Your task to perform on an android device: toggle show notifications on the lock screen Image 0: 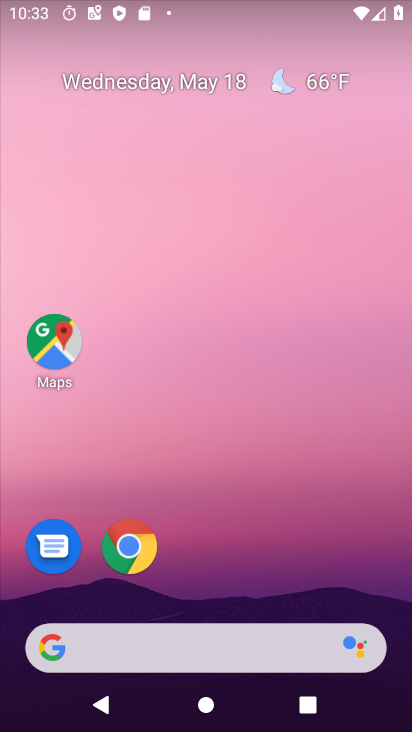
Step 0: drag from (234, 595) to (215, 204)
Your task to perform on an android device: toggle show notifications on the lock screen Image 1: 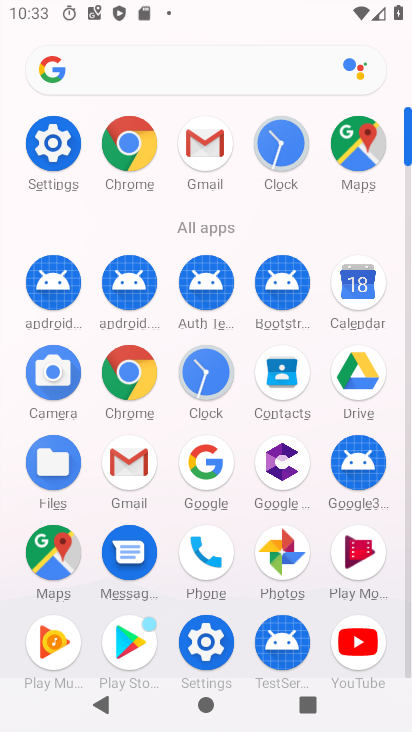
Step 1: click (39, 147)
Your task to perform on an android device: toggle show notifications on the lock screen Image 2: 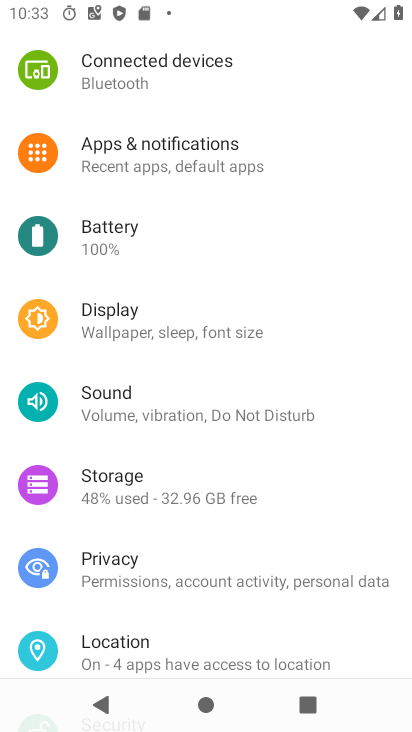
Step 2: click (155, 145)
Your task to perform on an android device: toggle show notifications on the lock screen Image 3: 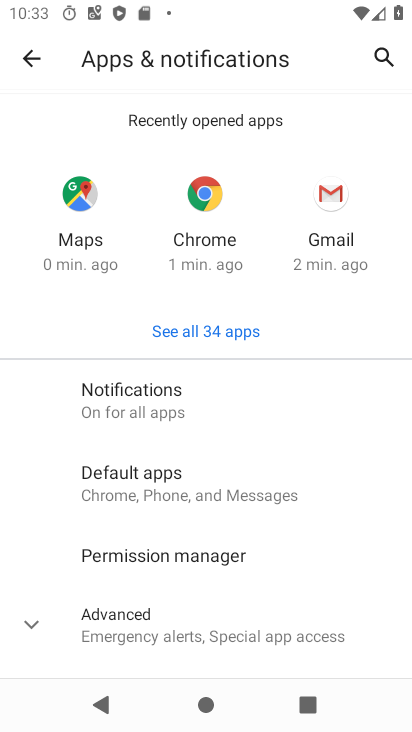
Step 3: drag from (220, 621) to (232, 301)
Your task to perform on an android device: toggle show notifications on the lock screen Image 4: 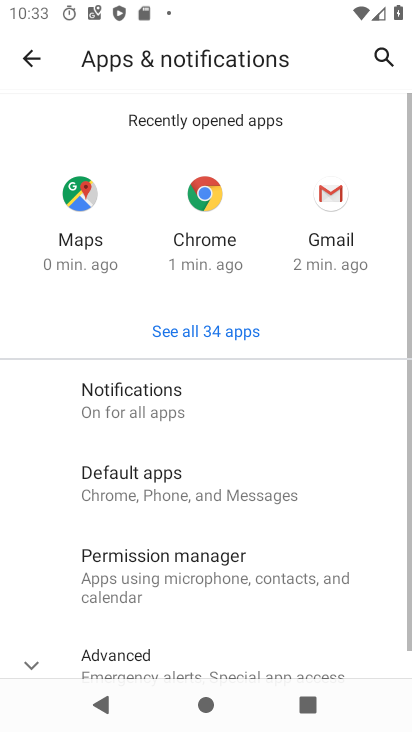
Step 4: click (118, 394)
Your task to perform on an android device: toggle show notifications on the lock screen Image 5: 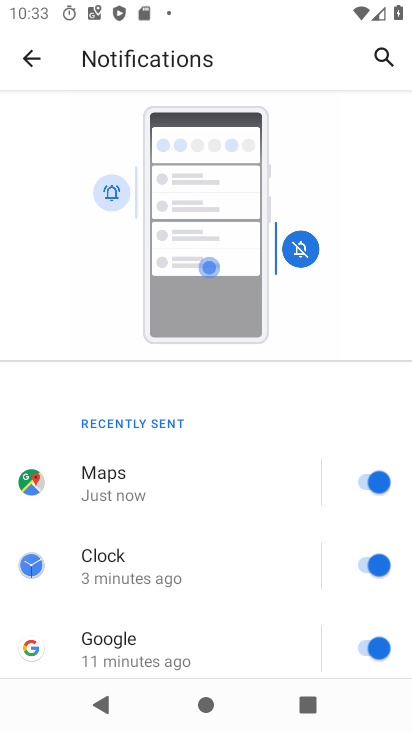
Step 5: drag from (102, 633) to (197, 261)
Your task to perform on an android device: toggle show notifications on the lock screen Image 6: 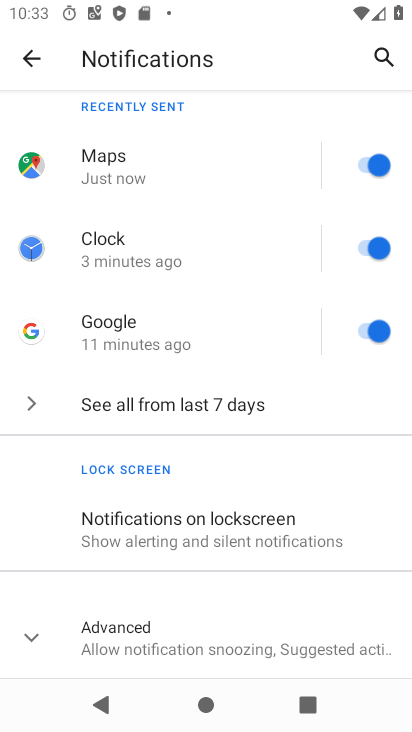
Step 6: click (107, 537)
Your task to perform on an android device: toggle show notifications on the lock screen Image 7: 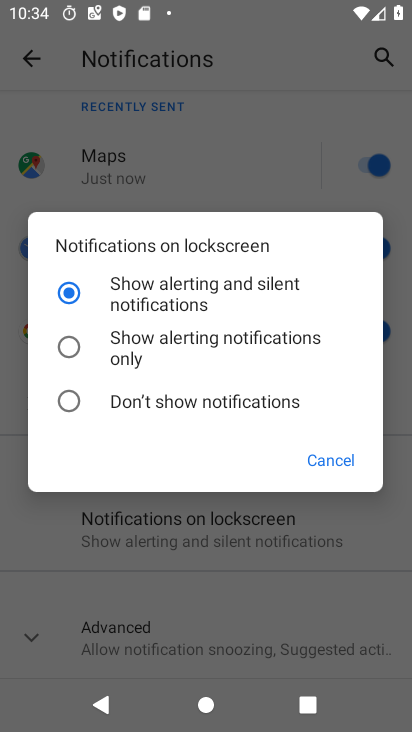
Step 7: click (220, 347)
Your task to perform on an android device: toggle show notifications on the lock screen Image 8: 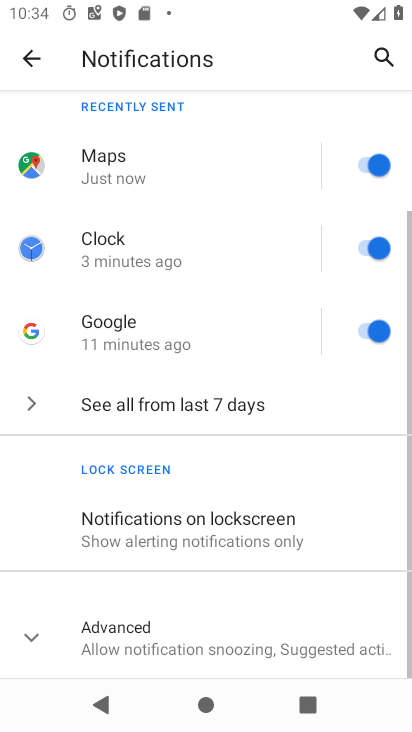
Step 8: task complete